Your task to perform on an android device: What's on my calendar tomorrow? Image 0: 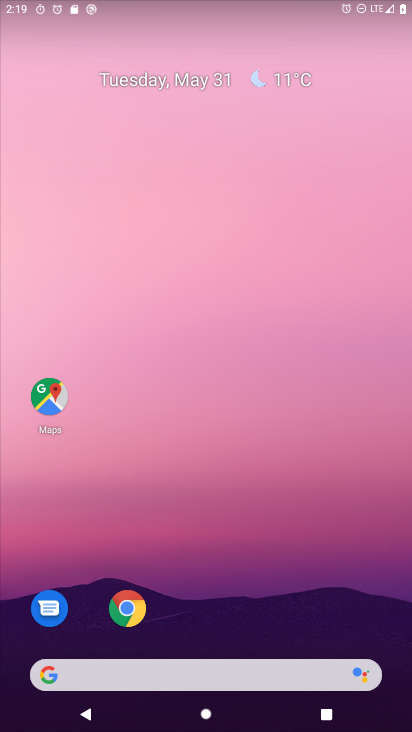
Step 0: drag from (346, 619) to (366, 6)
Your task to perform on an android device: What's on my calendar tomorrow? Image 1: 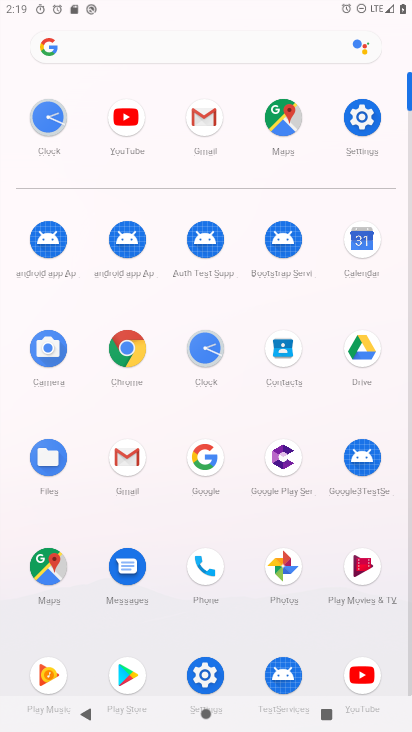
Step 1: click (371, 243)
Your task to perform on an android device: What's on my calendar tomorrow? Image 2: 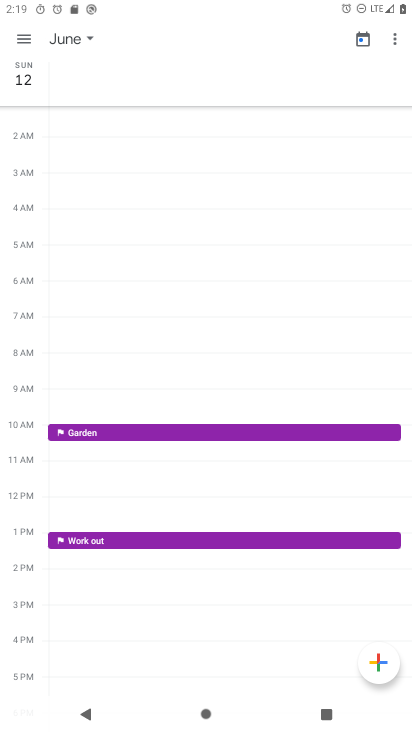
Step 2: click (361, 46)
Your task to perform on an android device: What's on my calendar tomorrow? Image 3: 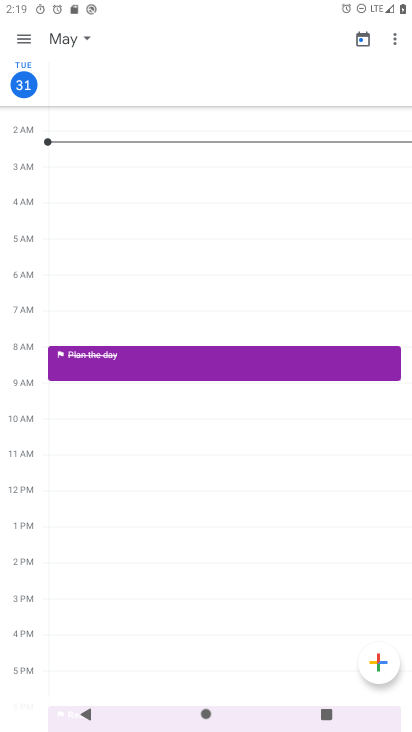
Step 3: click (20, 38)
Your task to perform on an android device: What's on my calendar tomorrow? Image 4: 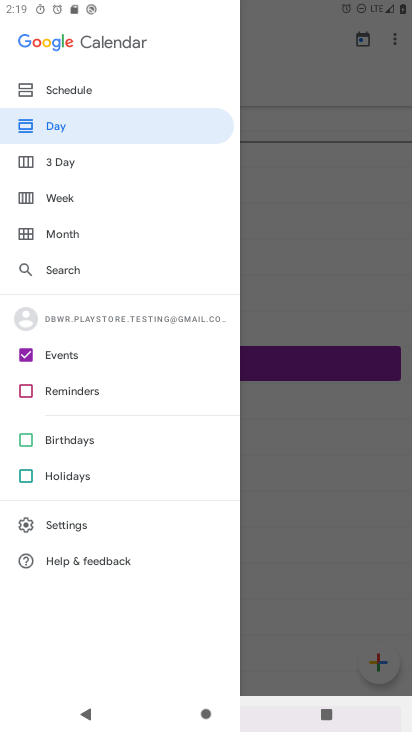
Step 4: click (48, 87)
Your task to perform on an android device: What's on my calendar tomorrow? Image 5: 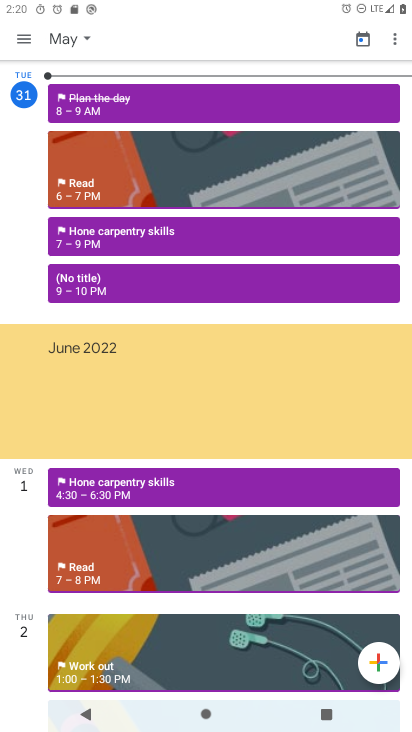
Step 5: click (149, 492)
Your task to perform on an android device: What's on my calendar tomorrow? Image 6: 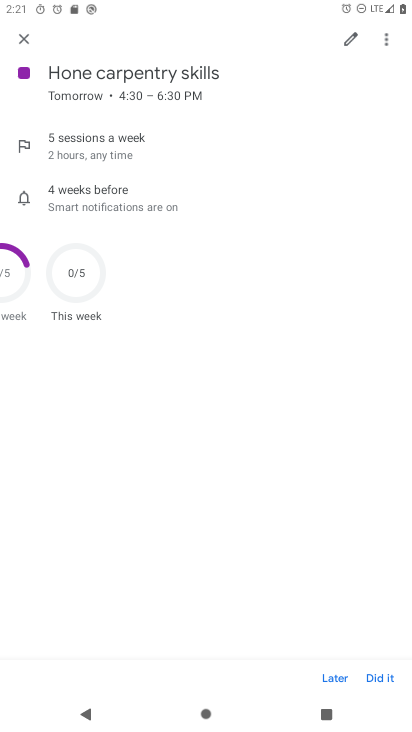
Step 6: task complete